Your task to perform on an android device: Is it going to rain today? Image 0: 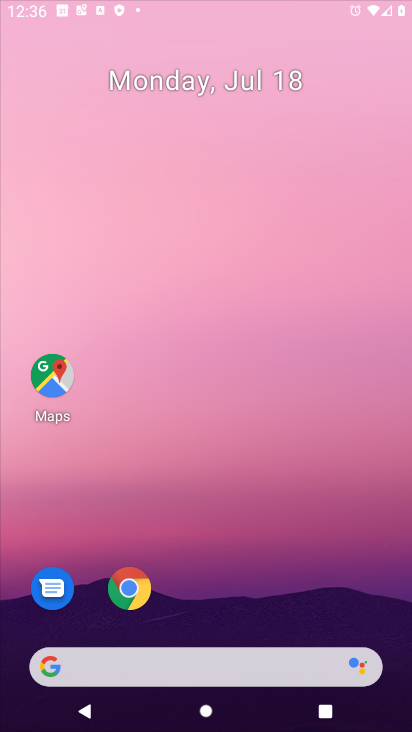
Step 0: click (391, 328)
Your task to perform on an android device: Is it going to rain today? Image 1: 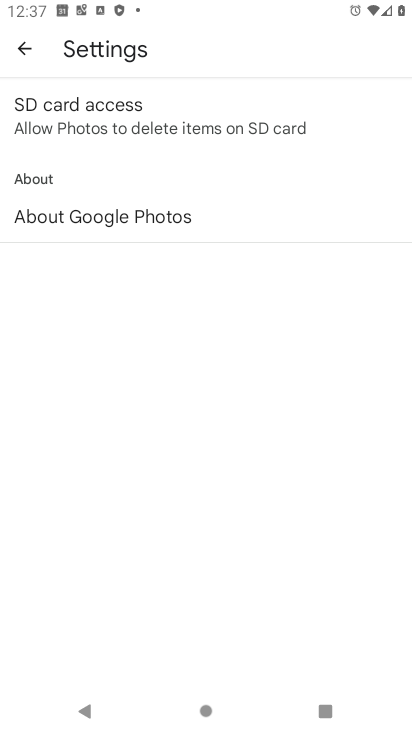
Step 1: press home button
Your task to perform on an android device: Is it going to rain today? Image 2: 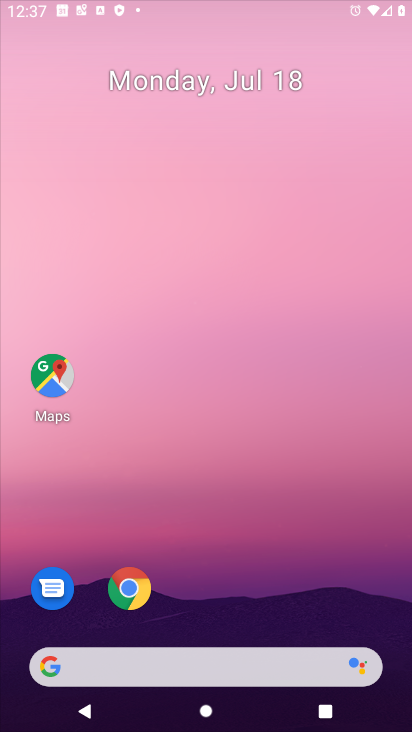
Step 2: drag from (296, 685) to (387, 333)
Your task to perform on an android device: Is it going to rain today? Image 3: 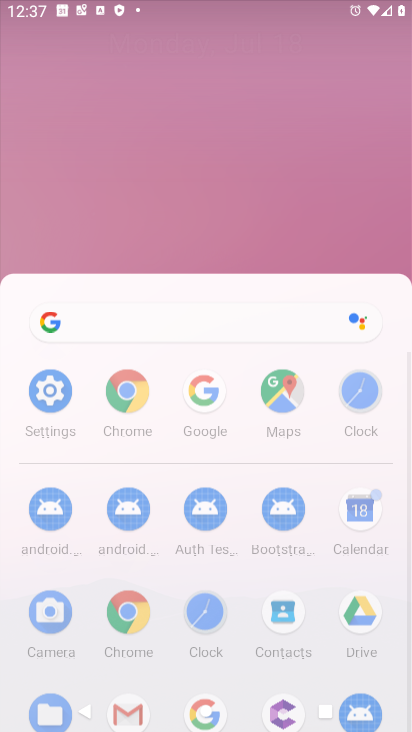
Step 3: drag from (233, 557) to (315, 196)
Your task to perform on an android device: Is it going to rain today? Image 4: 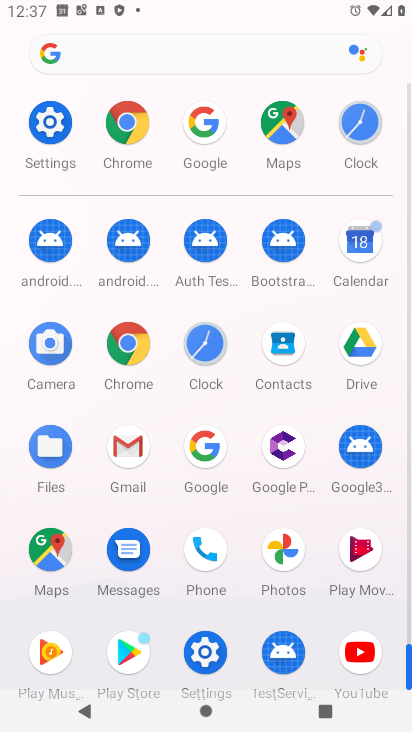
Step 4: click (210, 480)
Your task to perform on an android device: Is it going to rain today? Image 5: 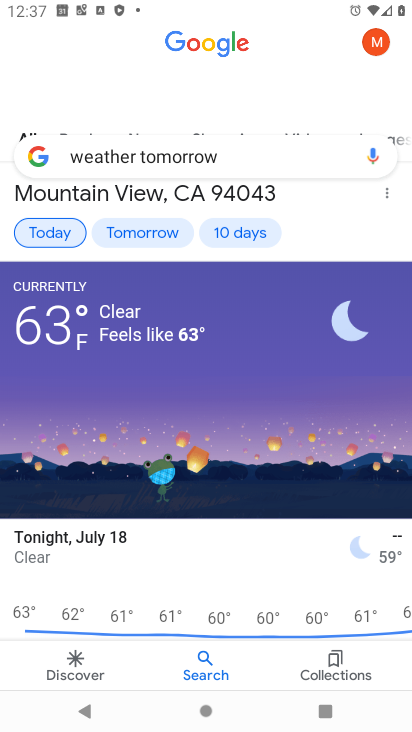
Step 5: click (63, 235)
Your task to perform on an android device: Is it going to rain today? Image 6: 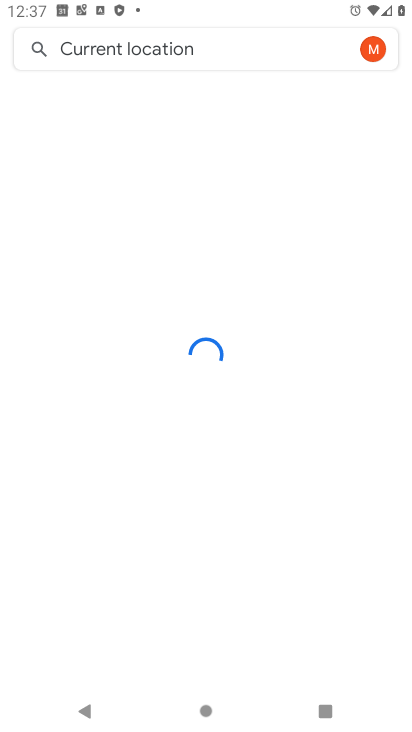
Step 6: task complete